Your task to perform on an android device: change the clock display to show seconds Image 0: 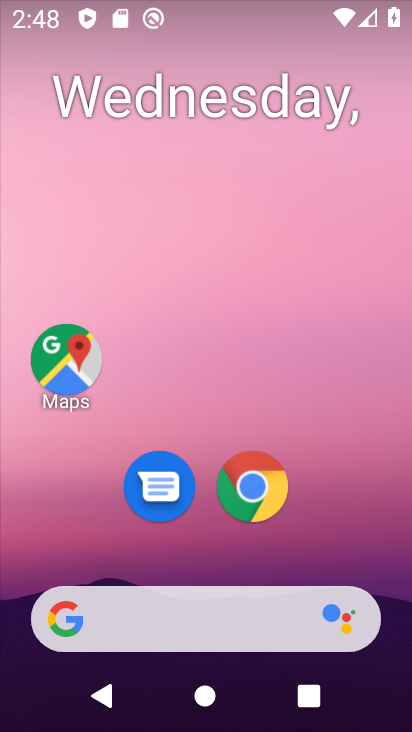
Step 0: drag from (235, 596) to (248, 114)
Your task to perform on an android device: change the clock display to show seconds Image 1: 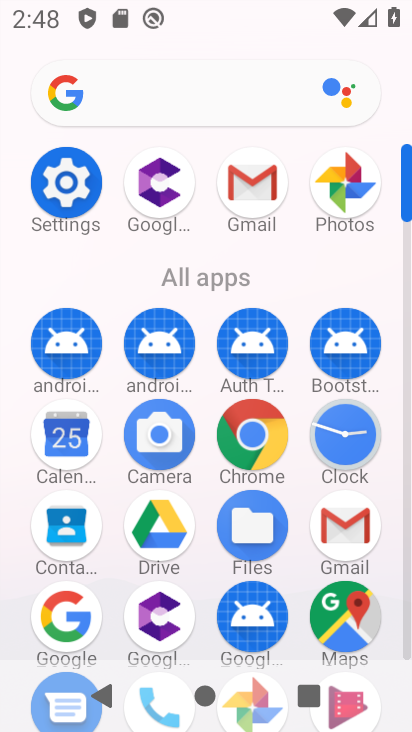
Step 1: click (343, 433)
Your task to perform on an android device: change the clock display to show seconds Image 2: 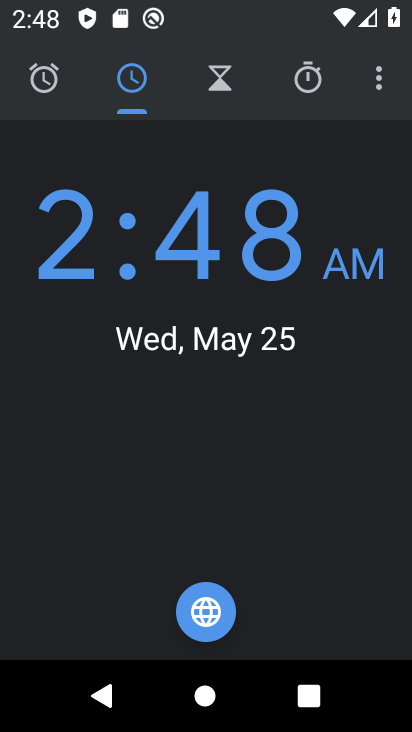
Step 2: click (379, 75)
Your task to perform on an android device: change the clock display to show seconds Image 3: 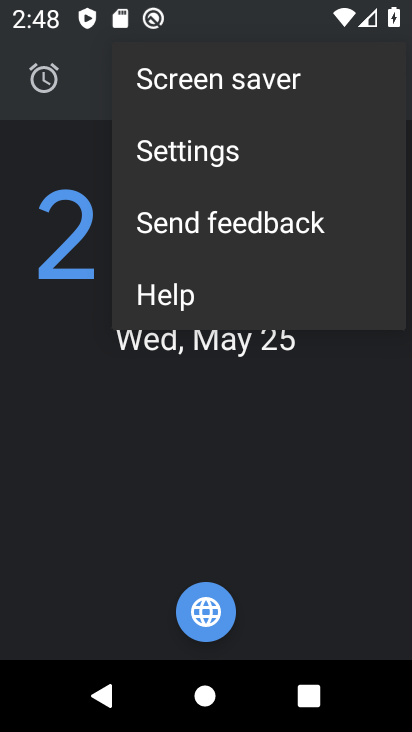
Step 3: click (237, 156)
Your task to perform on an android device: change the clock display to show seconds Image 4: 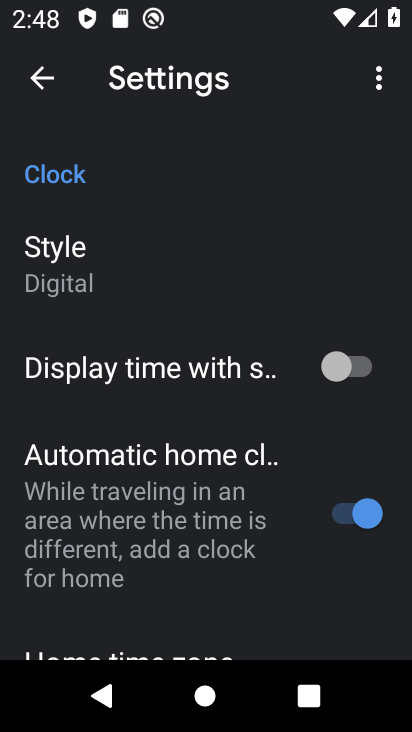
Step 4: click (362, 373)
Your task to perform on an android device: change the clock display to show seconds Image 5: 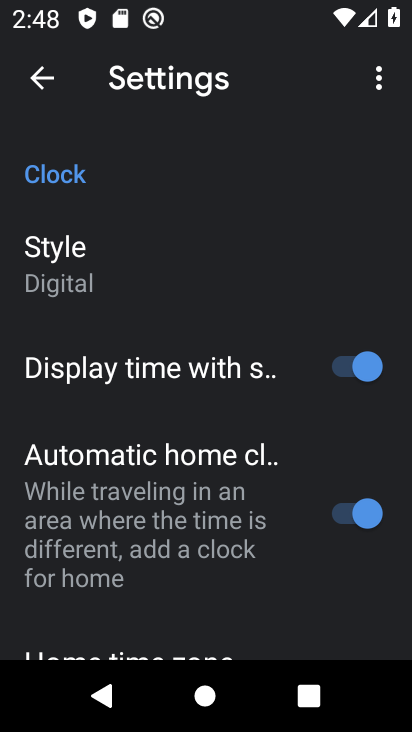
Step 5: task complete